Your task to perform on an android device: Go to internet settings Image 0: 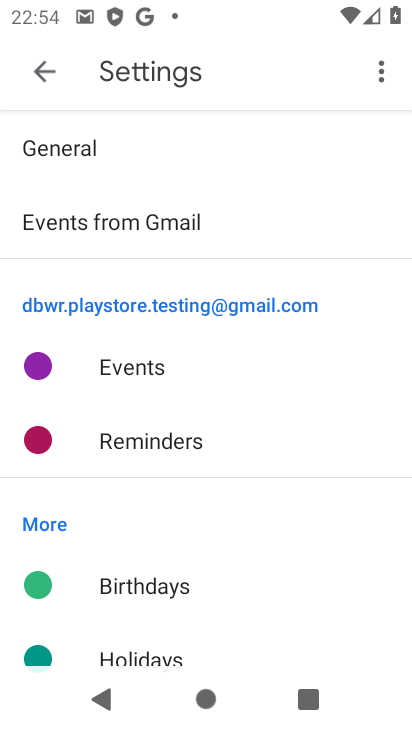
Step 0: press home button
Your task to perform on an android device: Go to internet settings Image 1: 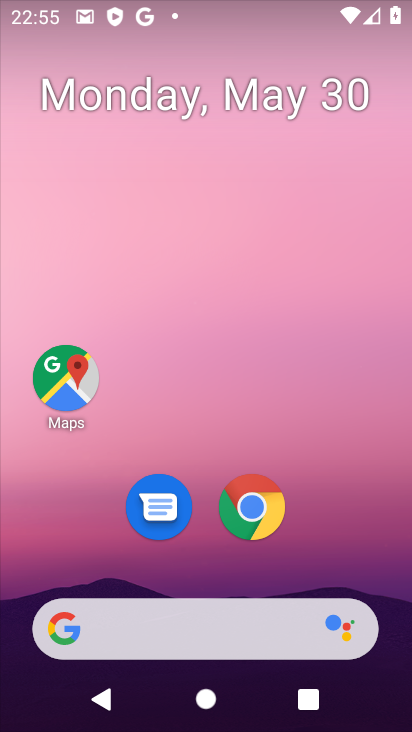
Step 1: drag from (370, 240) to (370, 142)
Your task to perform on an android device: Go to internet settings Image 2: 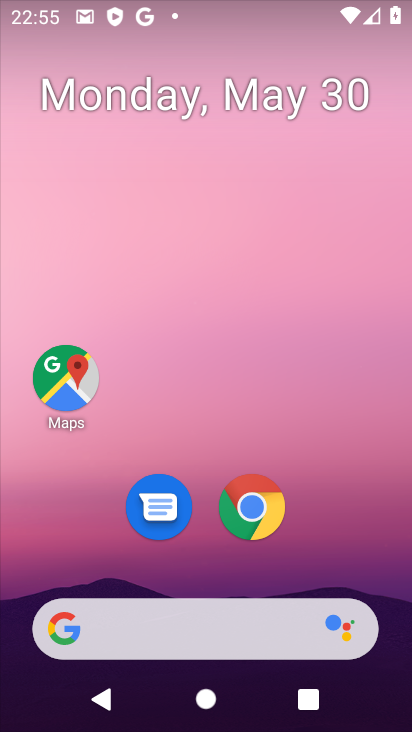
Step 2: drag from (366, 556) to (373, 121)
Your task to perform on an android device: Go to internet settings Image 3: 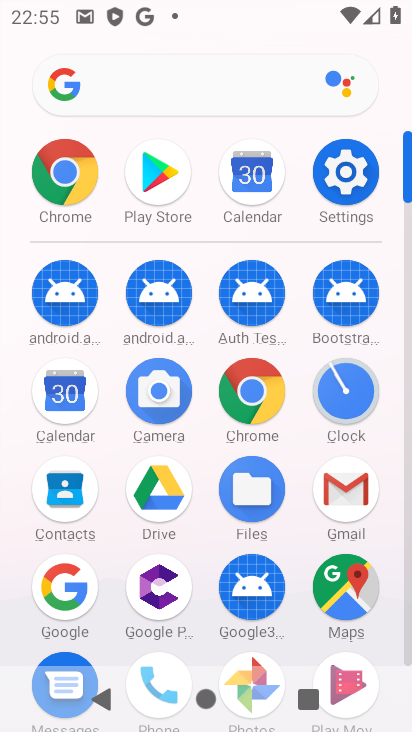
Step 3: click (353, 187)
Your task to perform on an android device: Go to internet settings Image 4: 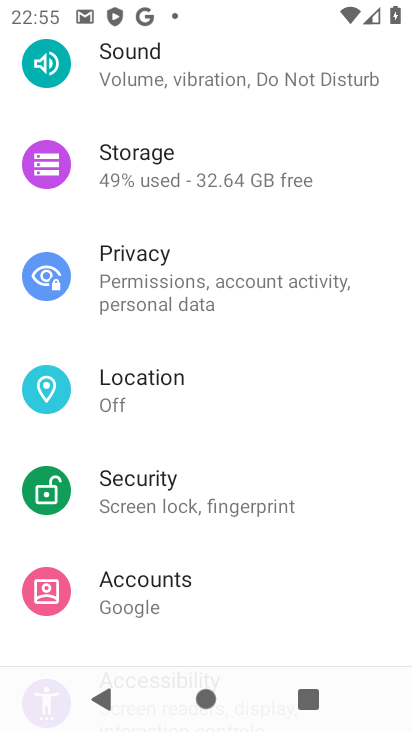
Step 4: drag from (363, 203) to (365, 356)
Your task to perform on an android device: Go to internet settings Image 5: 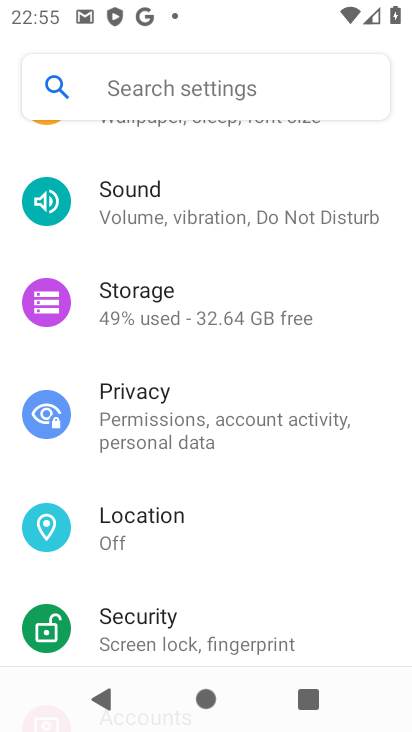
Step 5: drag from (361, 166) to (362, 349)
Your task to perform on an android device: Go to internet settings Image 6: 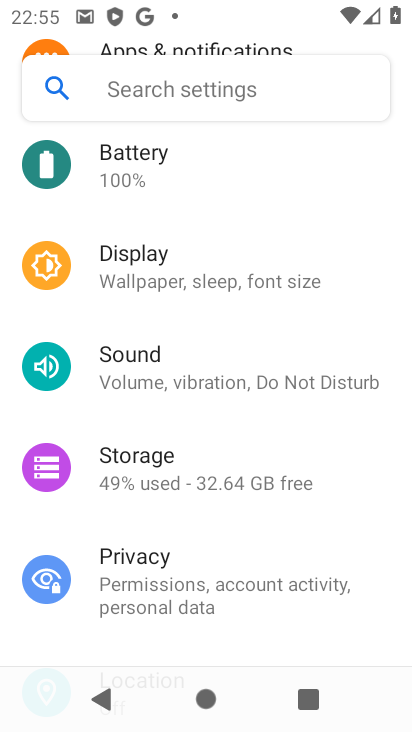
Step 6: drag from (351, 184) to (360, 327)
Your task to perform on an android device: Go to internet settings Image 7: 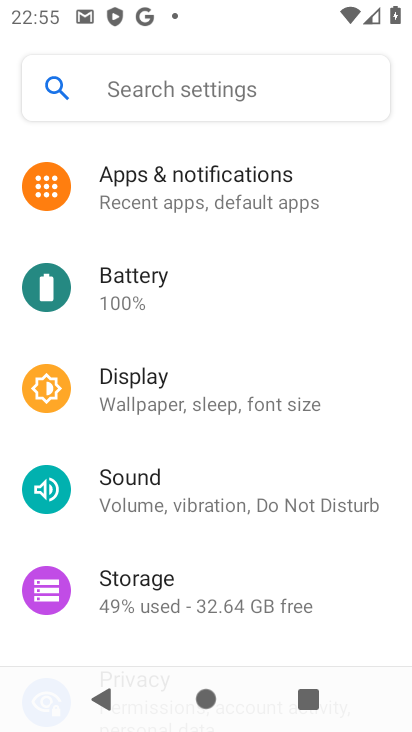
Step 7: drag from (357, 191) to (362, 332)
Your task to perform on an android device: Go to internet settings Image 8: 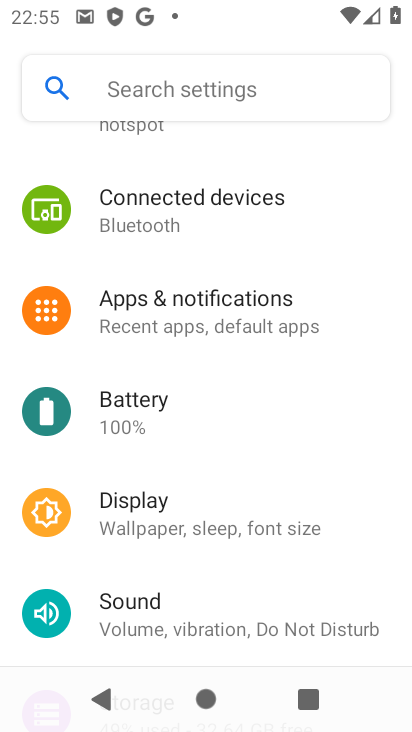
Step 8: drag from (345, 179) to (345, 324)
Your task to perform on an android device: Go to internet settings Image 9: 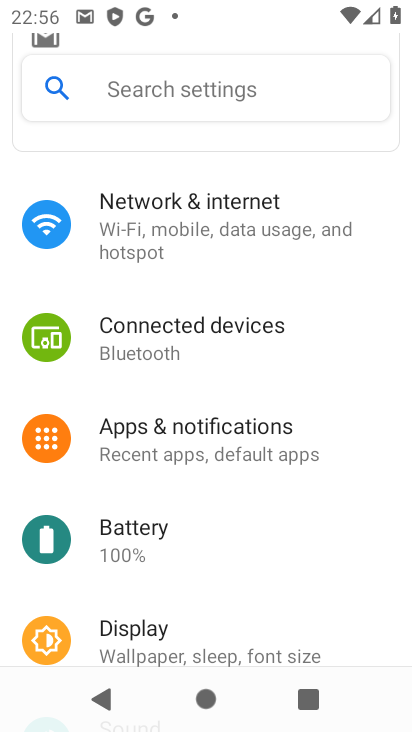
Step 9: click (308, 235)
Your task to perform on an android device: Go to internet settings Image 10: 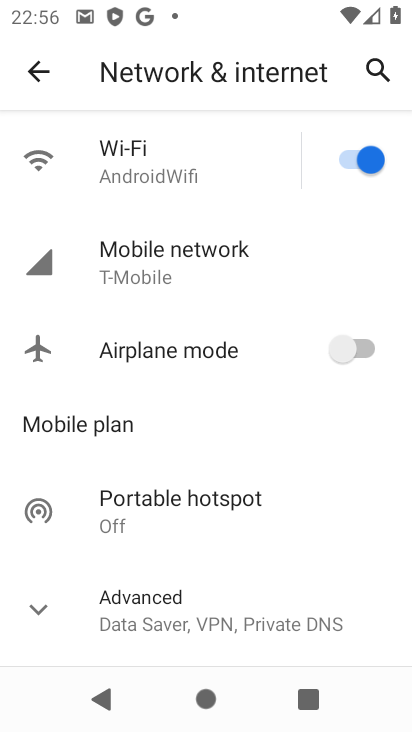
Step 10: task complete